Your task to perform on an android device: all mails in gmail Image 0: 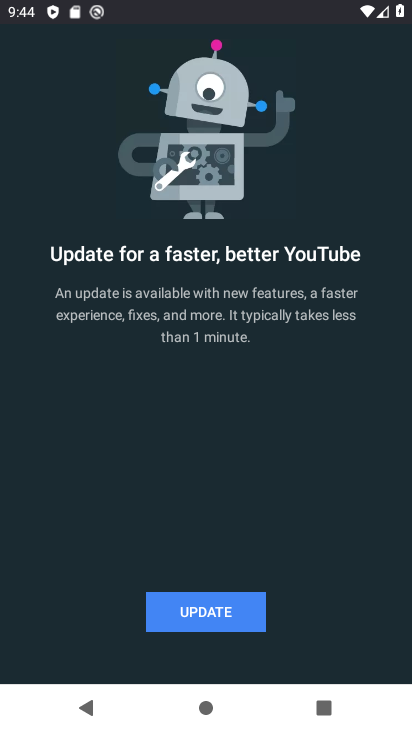
Step 0: press back button
Your task to perform on an android device: all mails in gmail Image 1: 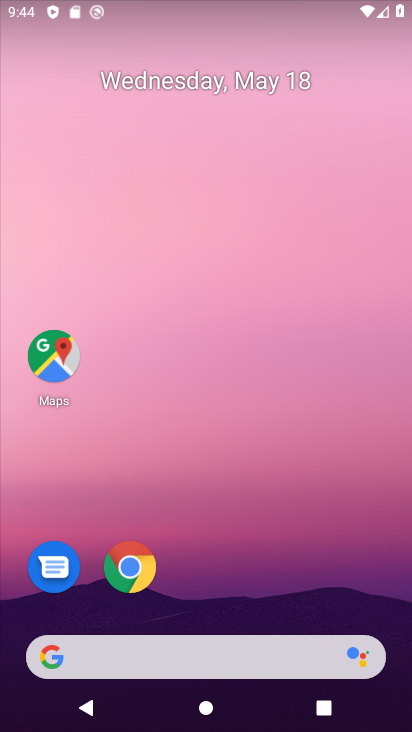
Step 1: drag from (230, 573) to (196, 22)
Your task to perform on an android device: all mails in gmail Image 2: 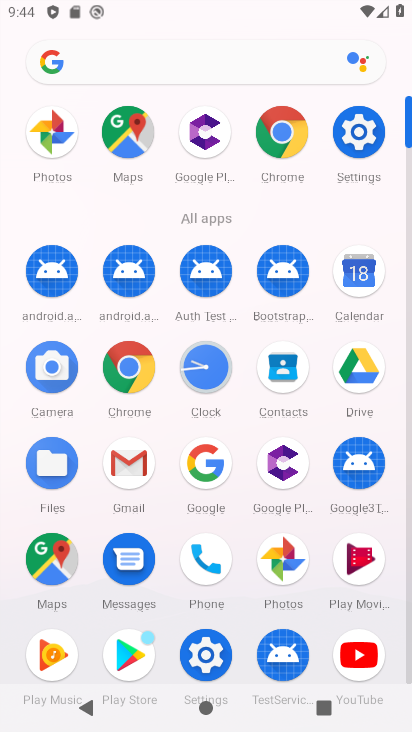
Step 2: click (126, 470)
Your task to perform on an android device: all mails in gmail Image 3: 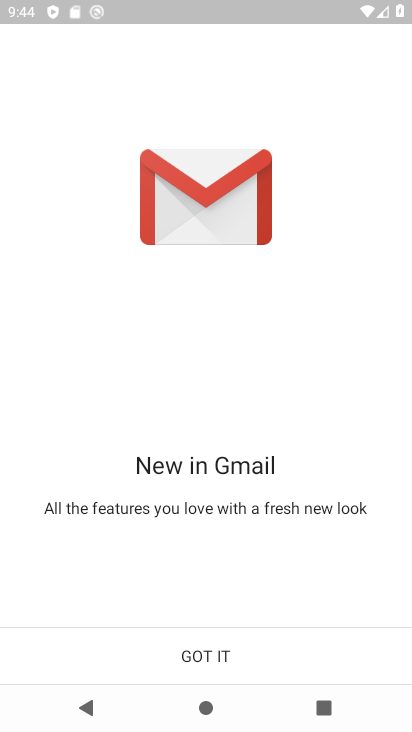
Step 3: click (205, 660)
Your task to perform on an android device: all mails in gmail Image 4: 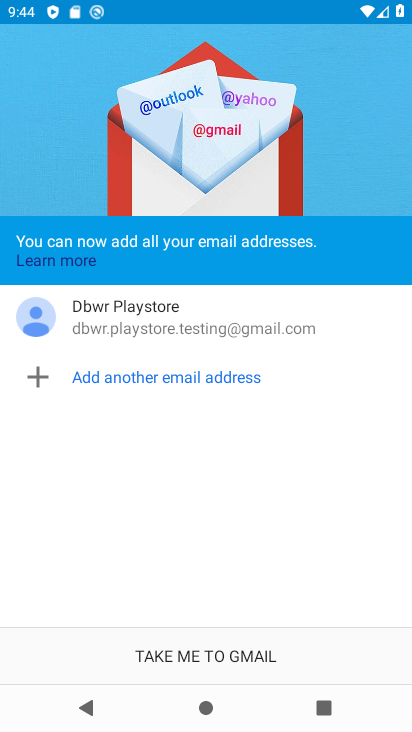
Step 4: click (230, 649)
Your task to perform on an android device: all mails in gmail Image 5: 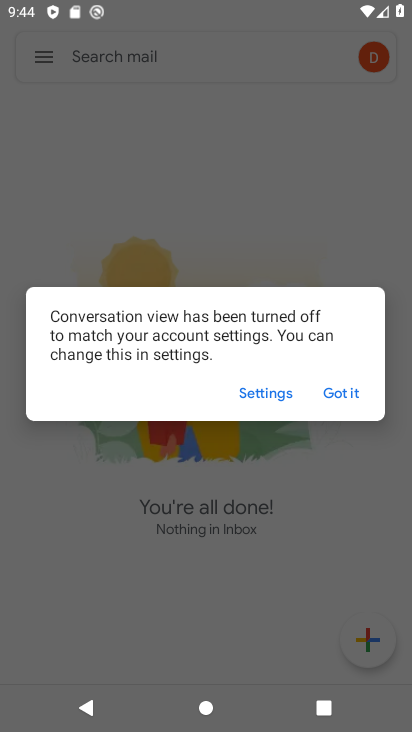
Step 5: click (340, 393)
Your task to perform on an android device: all mails in gmail Image 6: 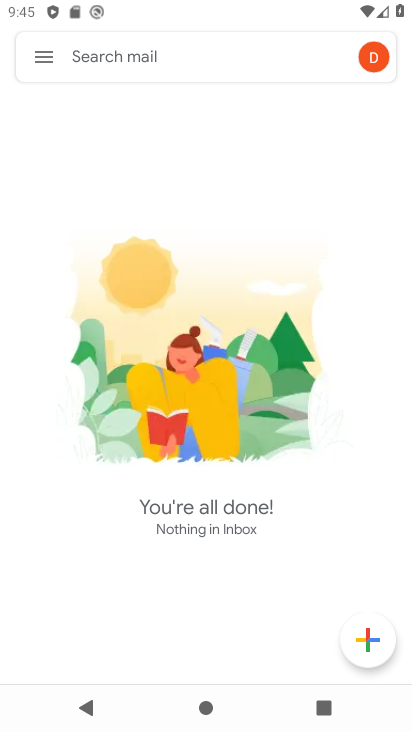
Step 6: click (42, 53)
Your task to perform on an android device: all mails in gmail Image 7: 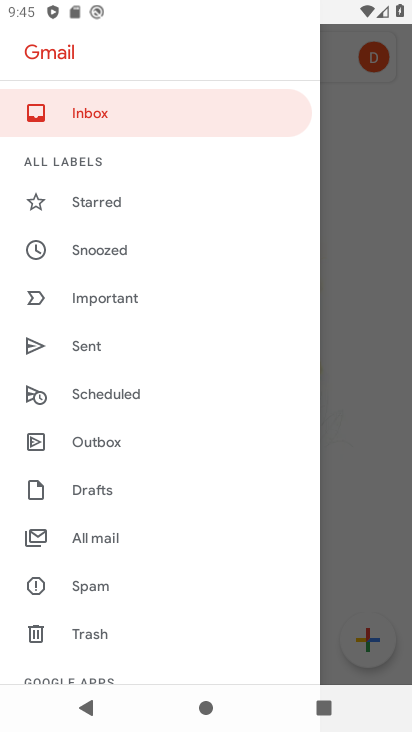
Step 7: click (93, 541)
Your task to perform on an android device: all mails in gmail Image 8: 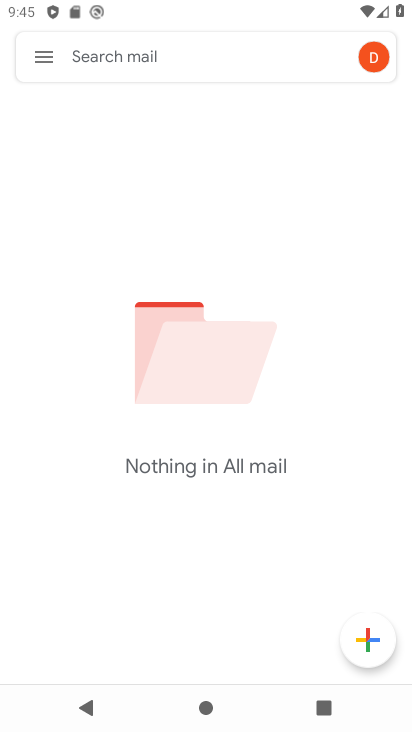
Step 8: task complete